Your task to perform on an android device: Open notification settings Image 0: 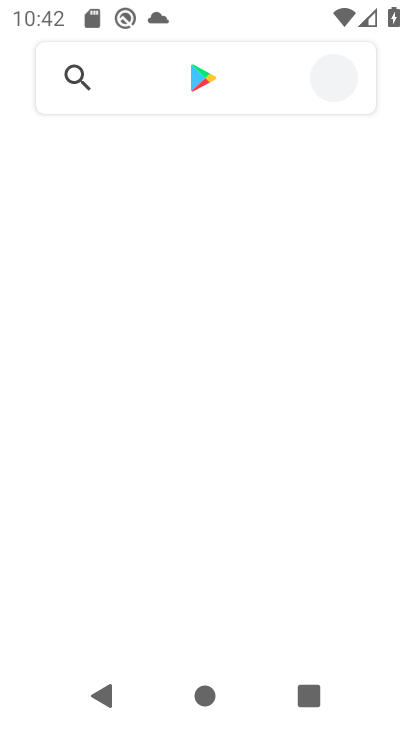
Step 0: drag from (344, 513) to (316, 308)
Your task to perform on an android device: Open notification settings Image 1: 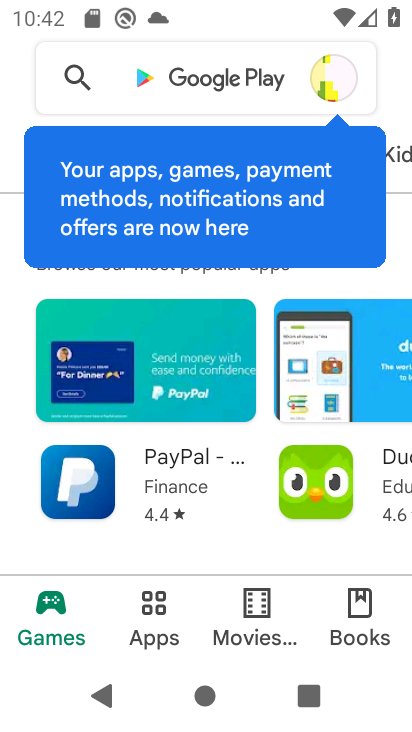
Step 1: press home button
Your task to perform on an android device: Open notification settings Image 2: 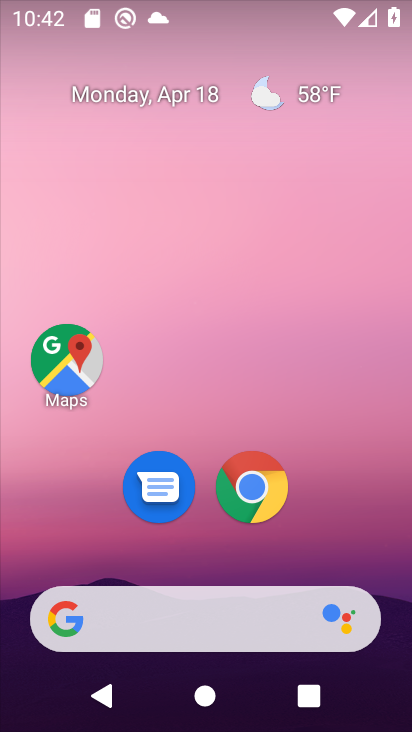
Step 2: drag from (338, 481) to (271, 33)
Your task to perform on an android device: Open notification settings Image 3: 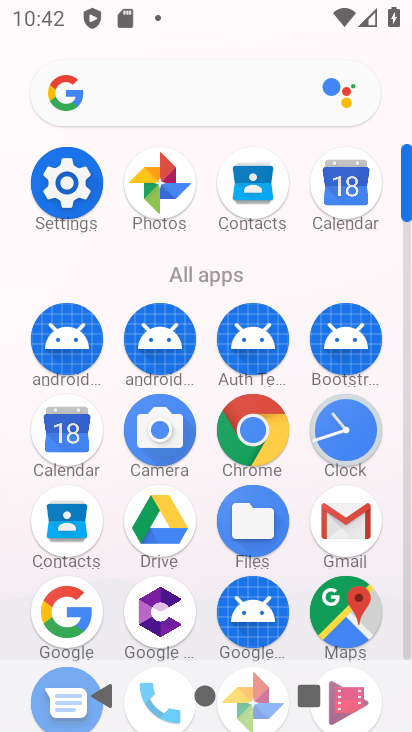
Step 3: click (71, 187)
Your task to perform on an android device: Open notification settings Image 4: 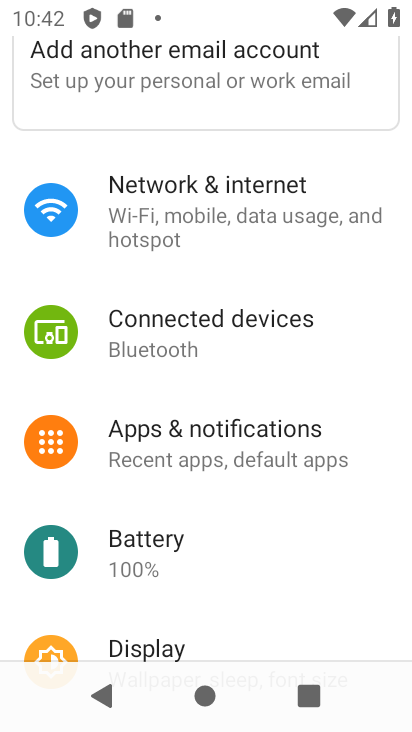
Step 4: click (259, 443)
Your task to perform on an android device: Open notification settings Image 5: 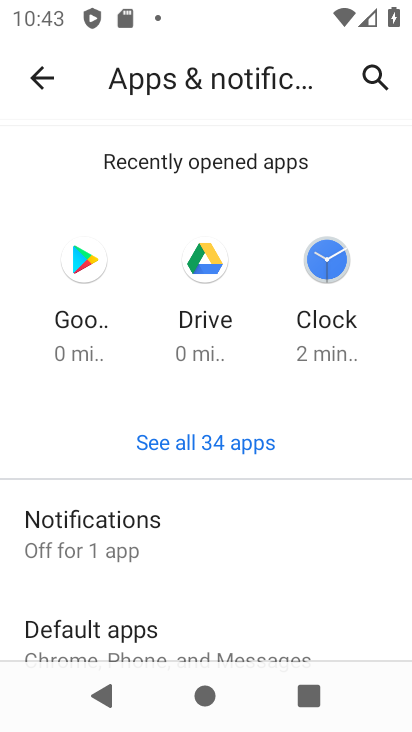
Step 5: task complete